Your task to perform on an android device: turn on translation in the chrome app Image 0: 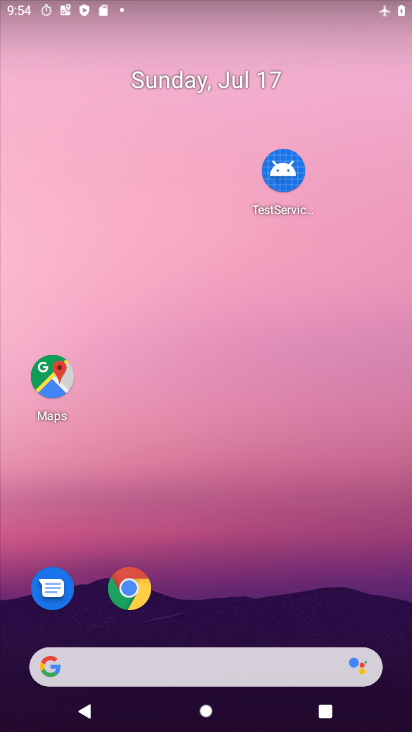
Step 0: drag from (144, 657) to (202, 250)
Your task to perform on an android device: turn on translation in the chrome app Image 1: 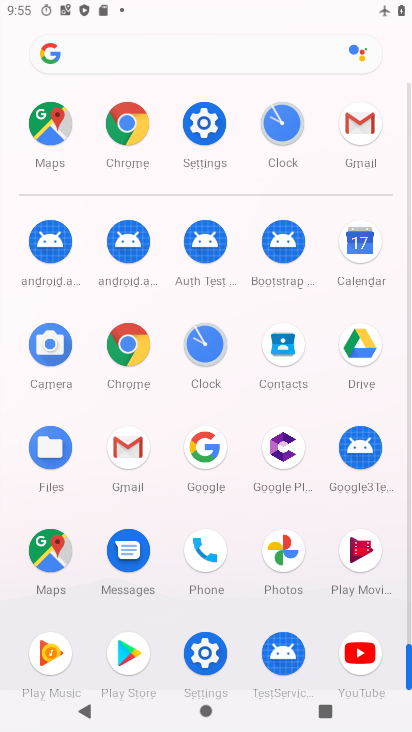
Step 1: click (134, 150)
Your task to perform on an android device: turn on translation in the chrome app Image 2: 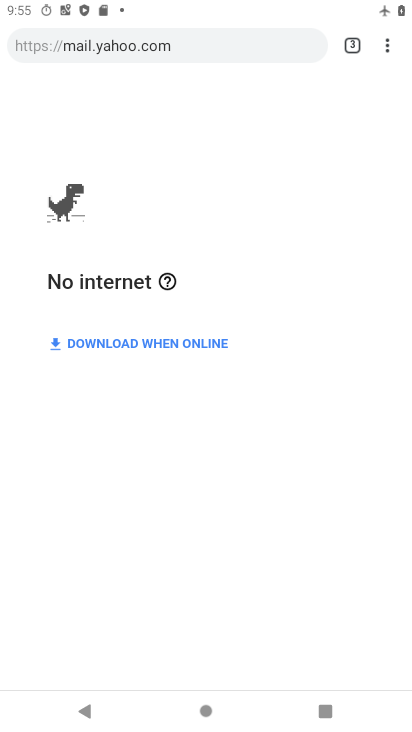
Step 2: click (387, 48)
Your task to perform on an android device: turn on translation in the chrome app Image 3: 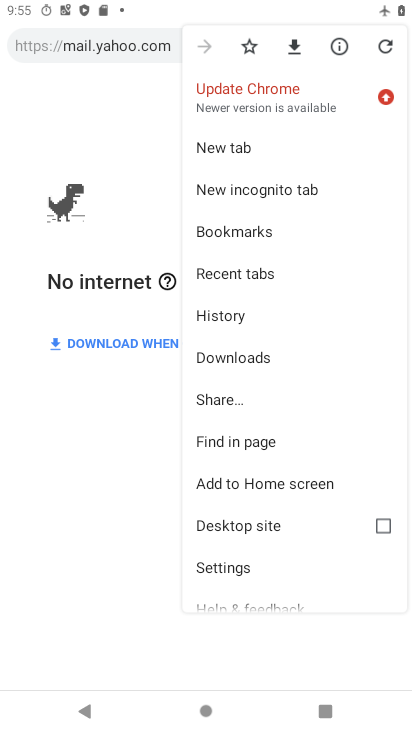
Step 3: task complete